Your task to perform on an android device: open app "Spotify" (install if not already installed) and enter user name: "infallible@icloud.com" and password: "implored" Image 0: 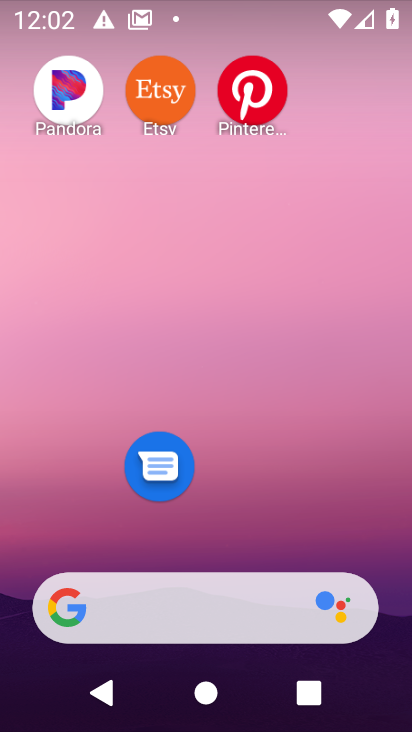
Step 0: drag from (224, 404) to (205, 13)
Your task to perform on an android device: open app "Spotify" (install if not already installed) and enter user name: "infallible@icloud.com" and password: "implored" Image 1: 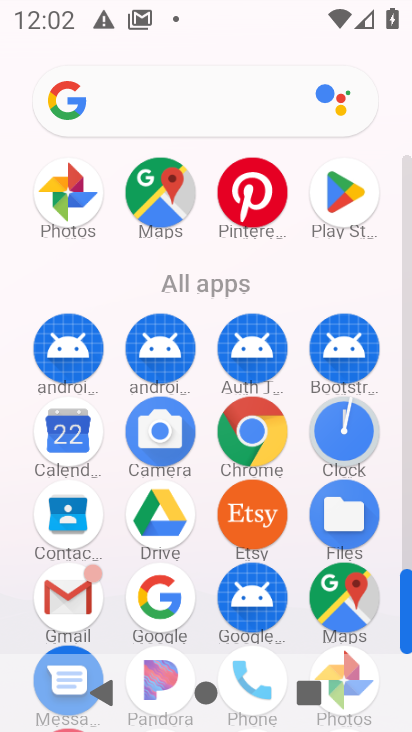
Step 1: click (329, 204)
Your task to perform on an android device: open app "Spotify" (install if not already installed) and enter user name: "infallible@icloud.com" and password: "implored" Image 2: 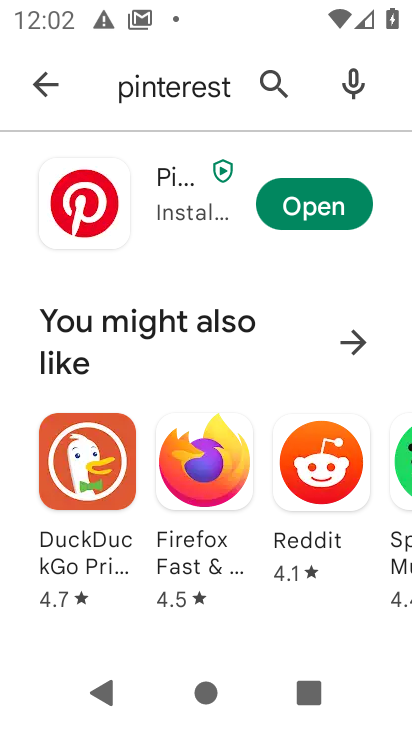
Step 2: click (43, 86)
Your task to perform on an android device: open app "Spotify" (install if not already installed) and enter user name: "infallible@icloud.com" and password: "implored" Image 3: 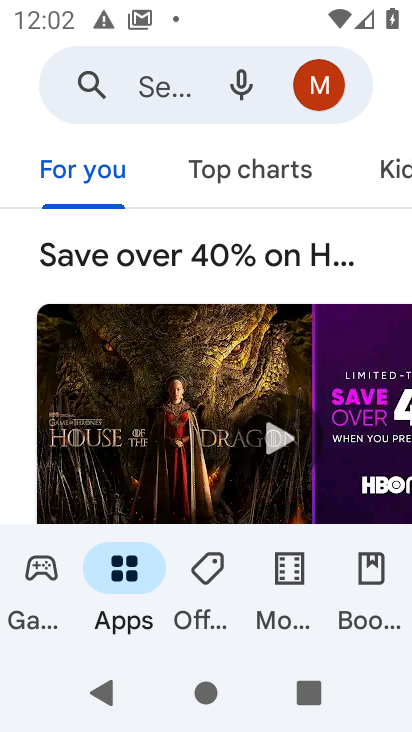
Step 3: click (119, 89)
Your task to perform on an android device: open app "Spotify" (install if not already installed) and enter user name: "infallible@icloud.com" and password: "implored" Image 4: 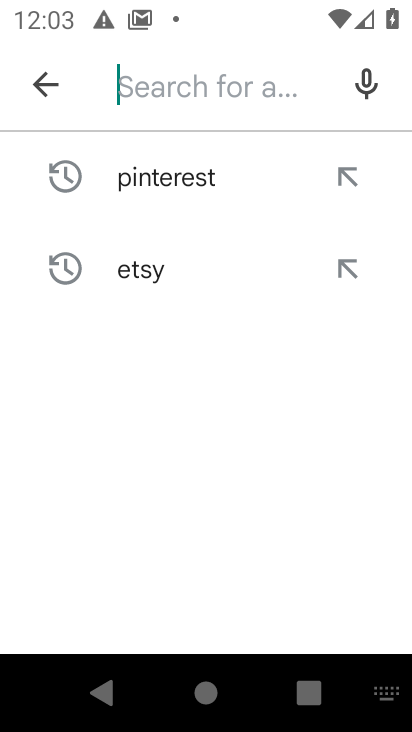
Step 4: type "Spotify"
Your task to perform on an android device: open app "Spotify" (install if not already installed) and enter user name: "infallible@icloud.com" and password: "implored" Image 5: 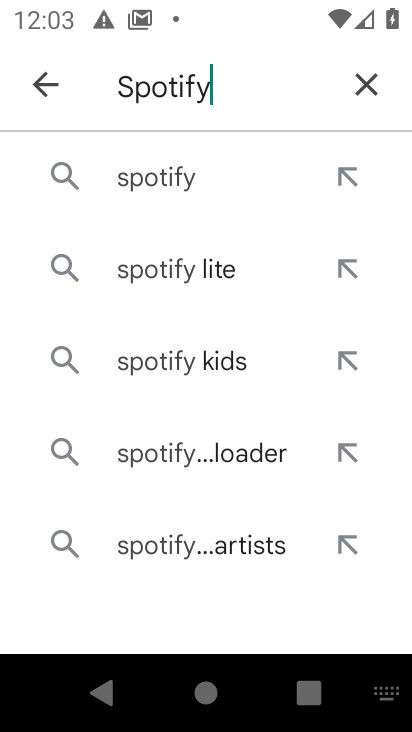
Step 5: click (144, 189)
Your task to perform on an android device: open app "Spotify" (install if not already installed) and enter user name: "infallible@icloud.com" and password: "implored" Image 6: 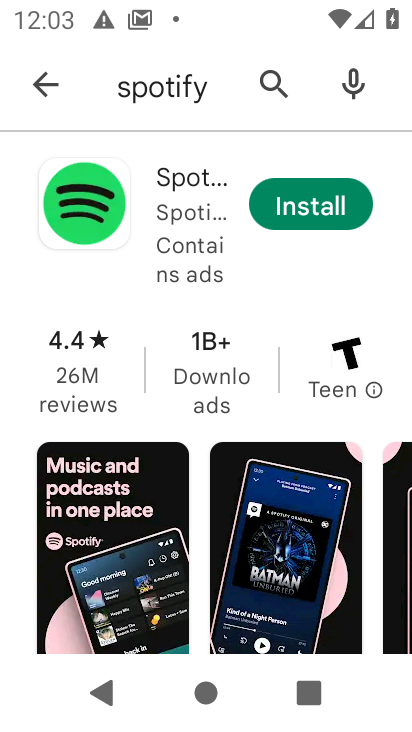
Step 6: click (310, 211)
Your task to perform on an android device: open app "Spotify" (install if not already installed) and enter user name: "infallible@icloud.com" and password: "implored" Image 7: 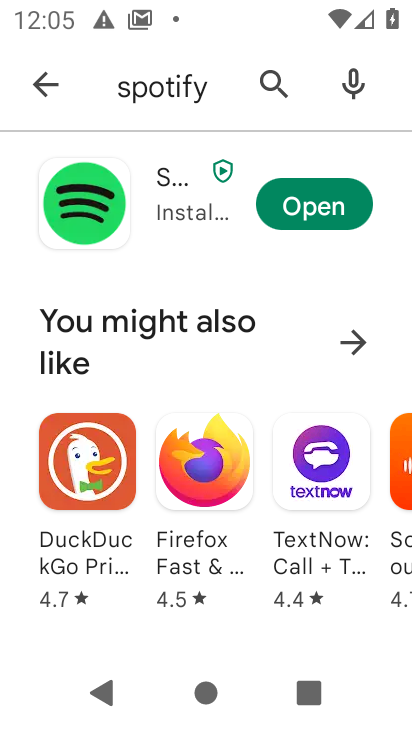
Step 7: click (307, 216)
Your task to perform on an android device: open app "Spotify" (install if not already installed) and enter user name: "infallible@icloud.com" and password: "implored" Image 8: 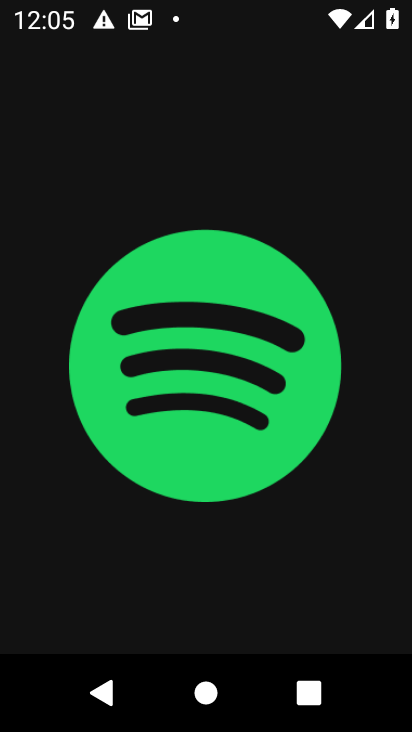
Step 8: task complete